Your task to perform on an android device: Show me the alarms in the clock app Image 0: 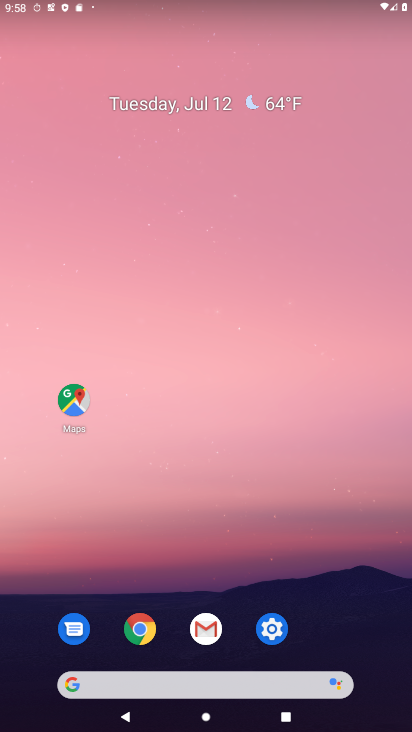
Step 0: drag from (249, 695) to (282, 173)
Your task to perform on an android device: Show me the alarms in the clock app Image 1: 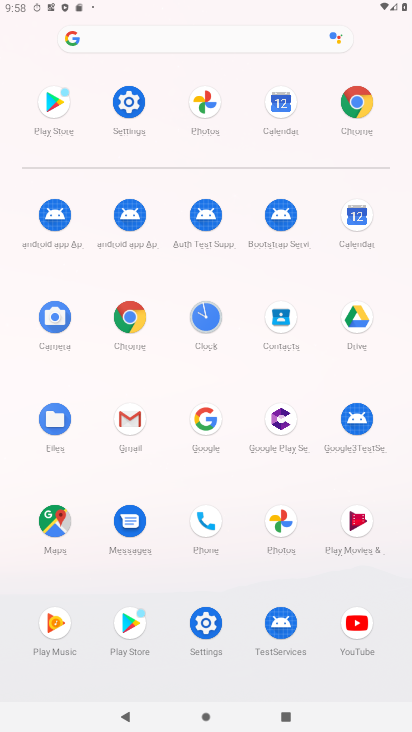
Step 1: click (217, 312)
Your task to perform on an android device: Show me the alarms in the clock app Image 2: 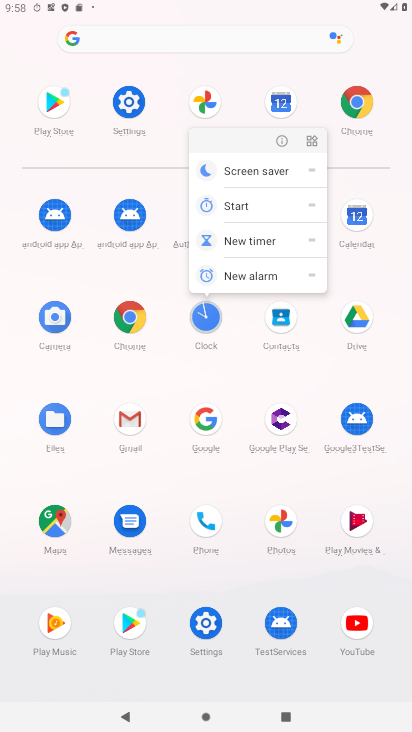
Step 2: click (214, 314)
Your task to perform on an android device: Show me the alarms in the clock app Image 3: 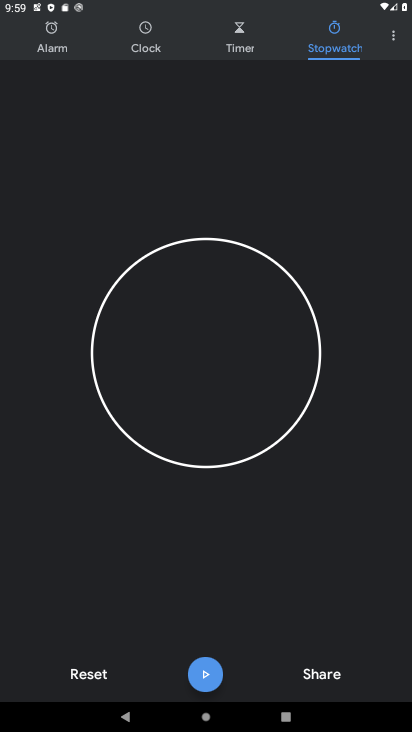
Step 3: click (397, 42)
Your task to perform on an android device: Show me the alarms in the clock app Image 4: 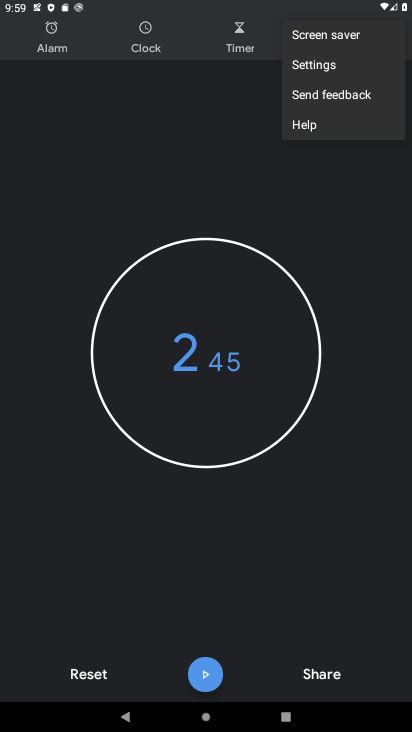
Step 4: click (51, 26)
Your task to perform on an android device: Show me the alarms in the clock app Image 5: 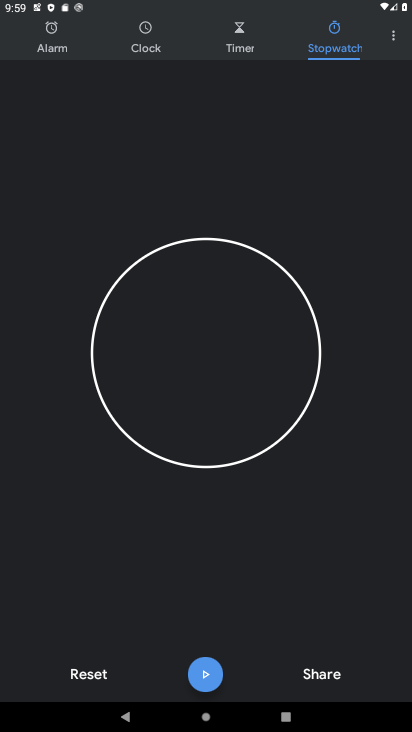
Step 5: click (73, 53)
Your task to perform on an android device: Show me the alarms in the clock app Image 6: 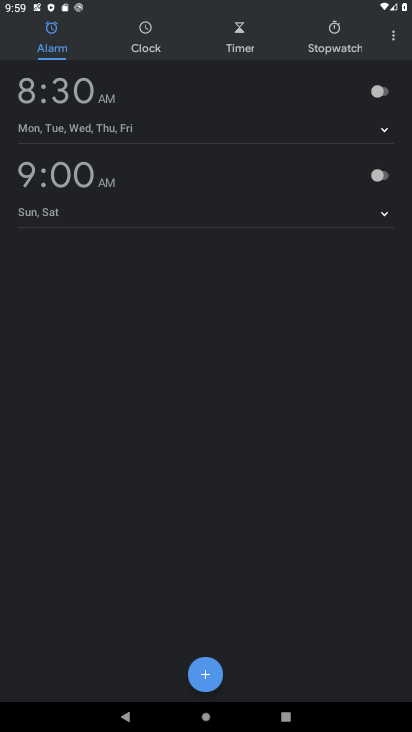
Step 6: task complete